Your task to perform on an android device: Show me recent news Image 0: 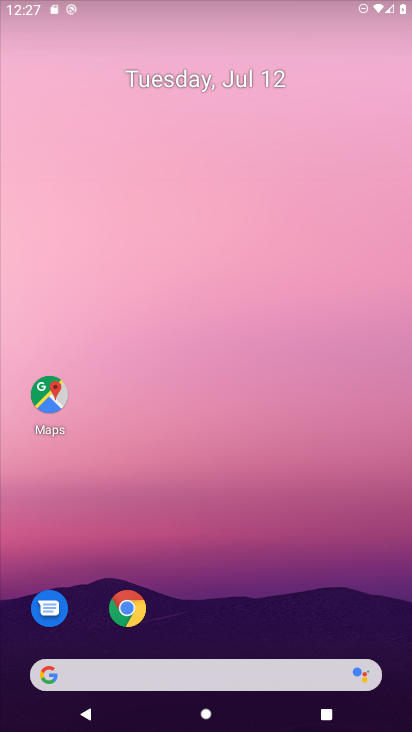
Step 0: click (223, 43)
Your task to perform on an android device: Show me recent news Image 1: 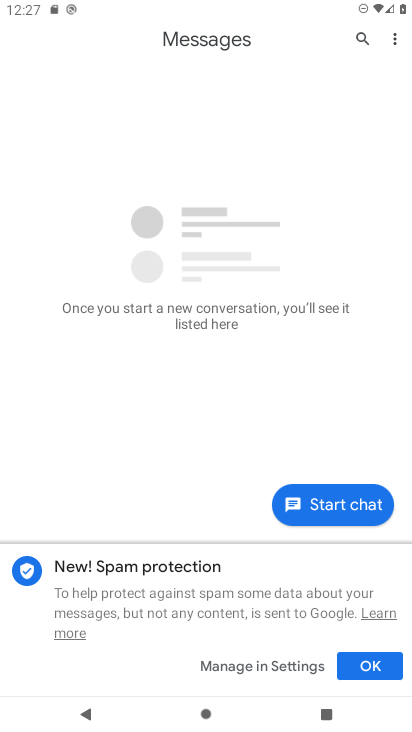
Step 1: task complete